Your task to perform on an android device: set an alarm Image 0: 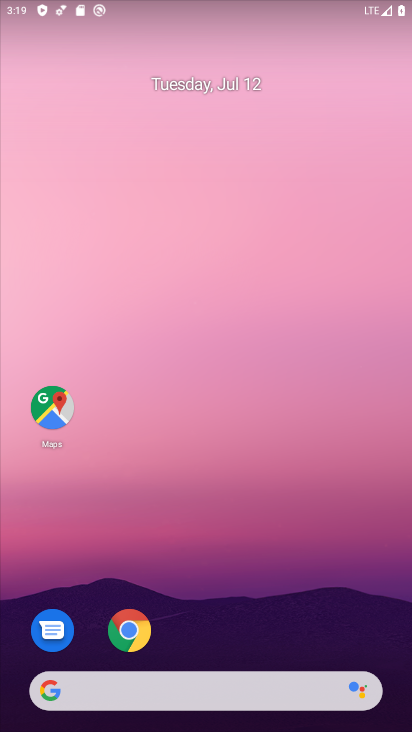
Step 0: drag from (252, 47) to (293, 14)
Your task to perform on an android device: set an alarm Image 1: 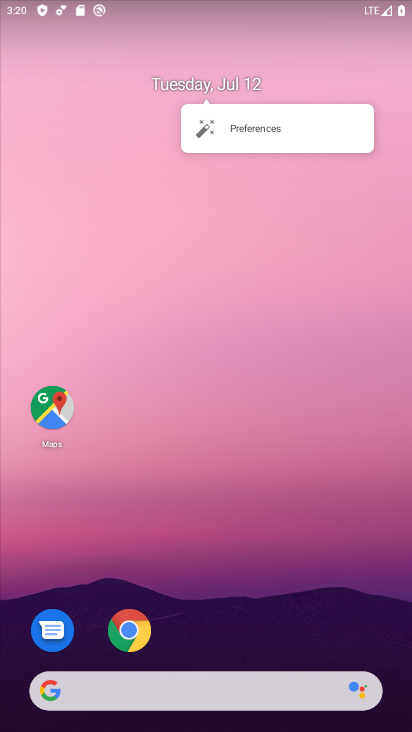
Step 1: drag from (205, 629) to (296, 113)
Your task to perform on an android device: set an alarm Image 2: 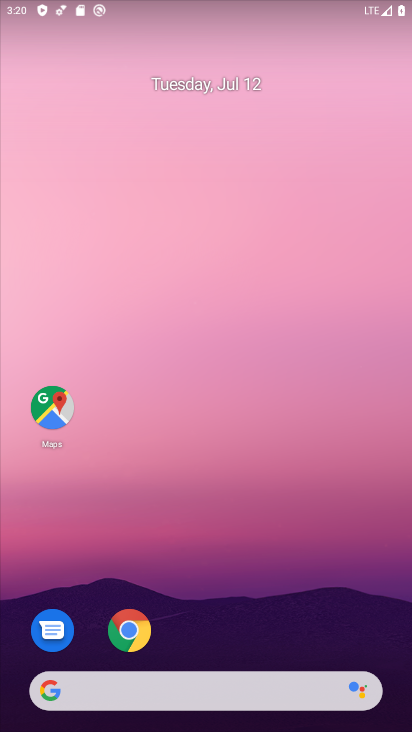
Step 2: drag from (244, 546) to (277, 1)
Your task to perform on an android device: set an alarm Image 3: 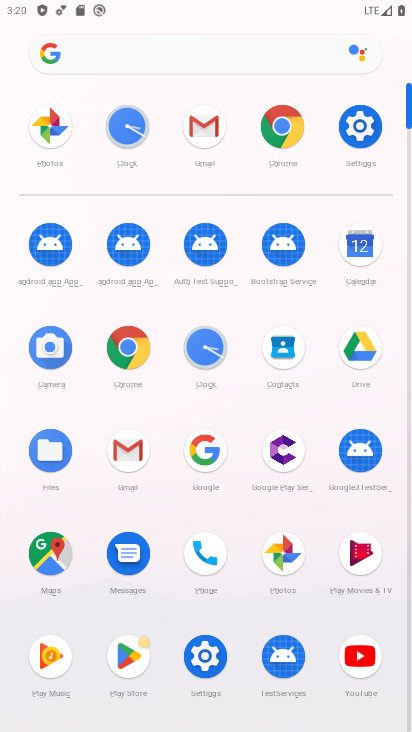
Step 3: click (218, 337)
Your task to perform on an android device: set an alarm Image 4: 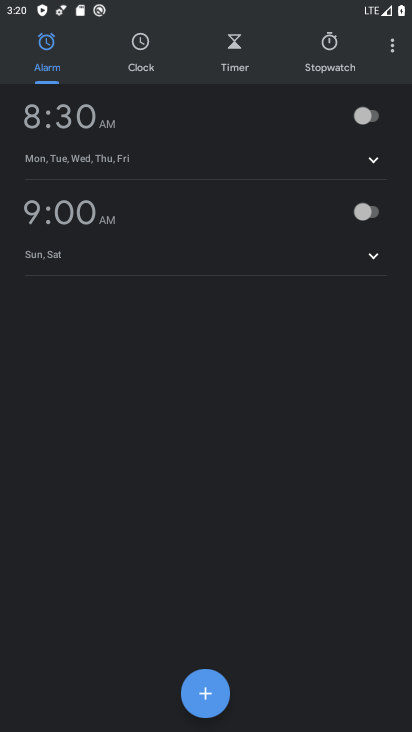
Step 4: click (71, 121)
Your task to perform on an android device: set an alarm Image 5: 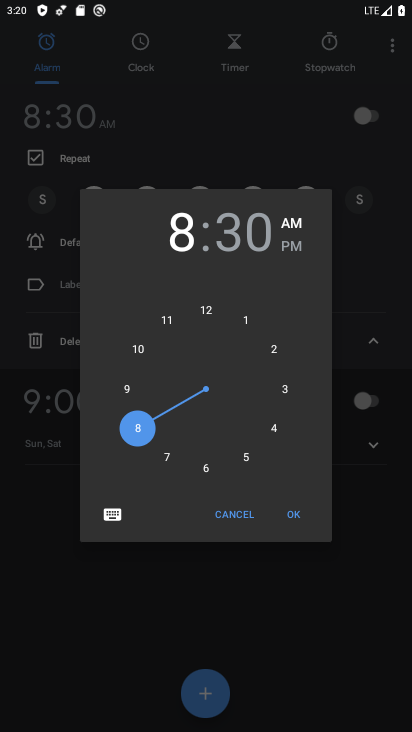
Step 5: click (141, 345)
Your task to perform on an android device: set an alarm Image 6: 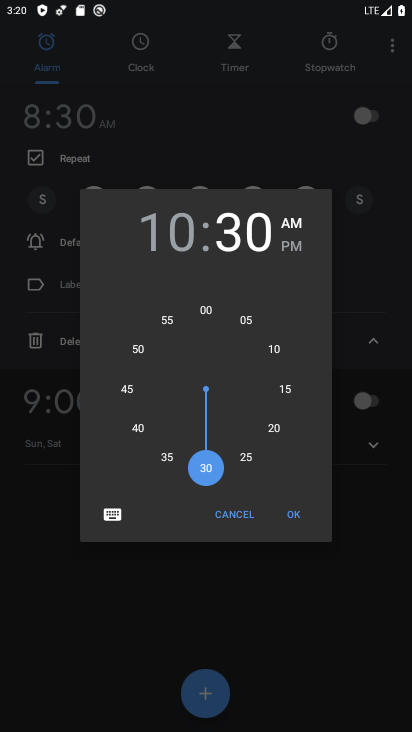
Step 6: click (252, 465)
Your task to perform on an android device: set an alarm Image 7: 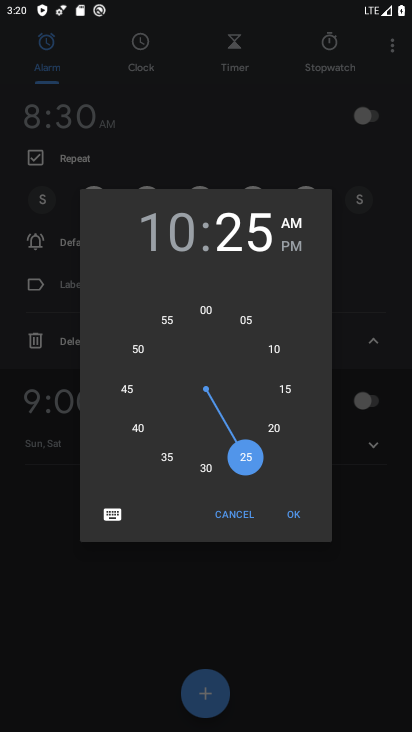
Step 7: click (299, 514)
Your task to perform on an android device: set an alarm Image 8: 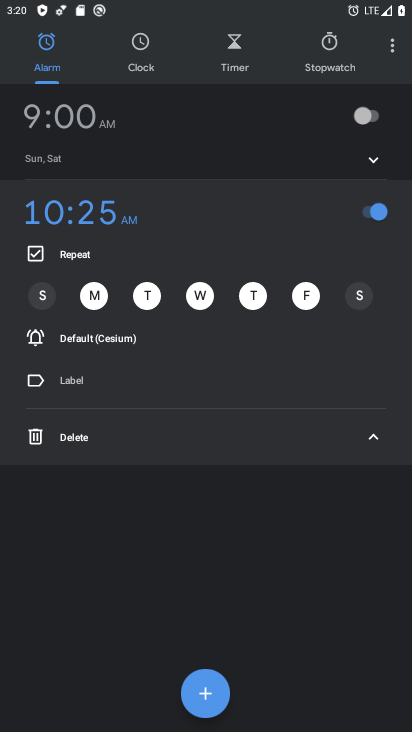
Step 8: task complete